Your task to perform on an android device: open chrome and create a bookmark for the current page Image 0: 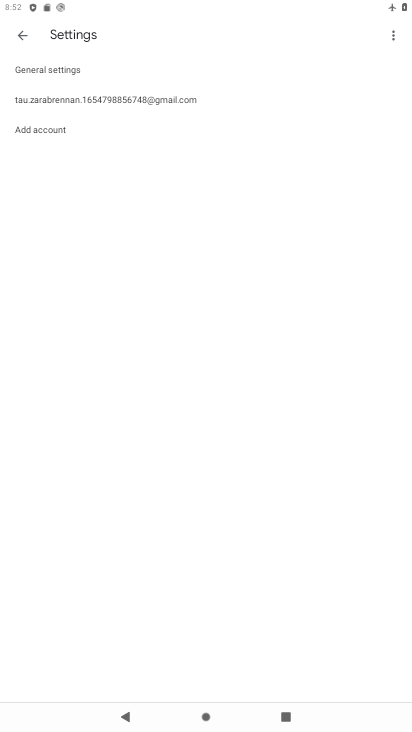
Step 0: press home button
Your task to perform on an android device: open chrome and create a bookmark for the current page Image 1: 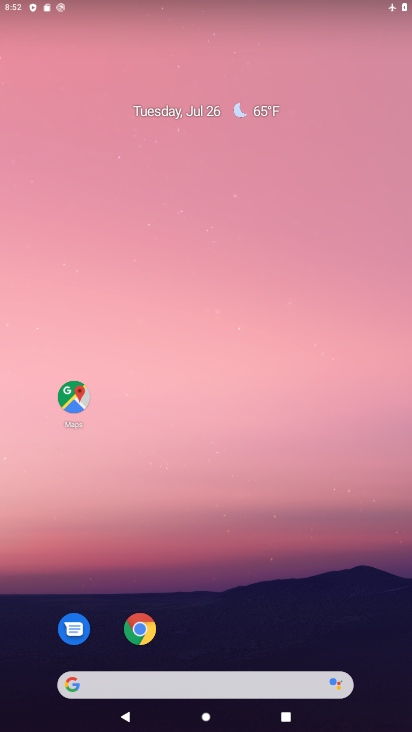
Step 1: drag from (299, 598) to (252, 17)
Your task to perform on an android device: open chrome and create a bookmark for the current page Image 2: 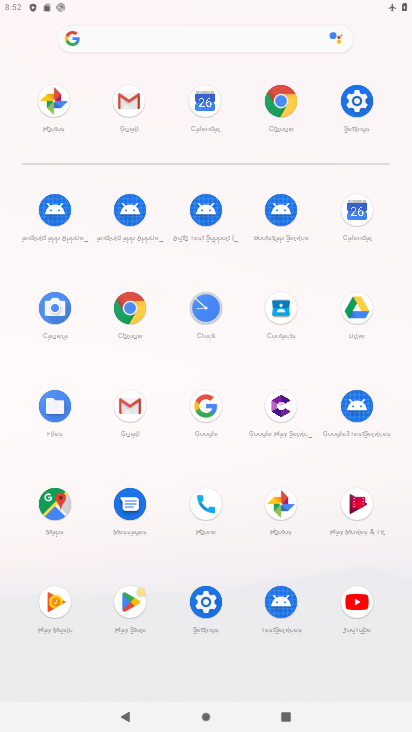
Step 2: click (281, 109)
Your task to perform on an android device: open chrome and create a bookmark for the current page Image 3: 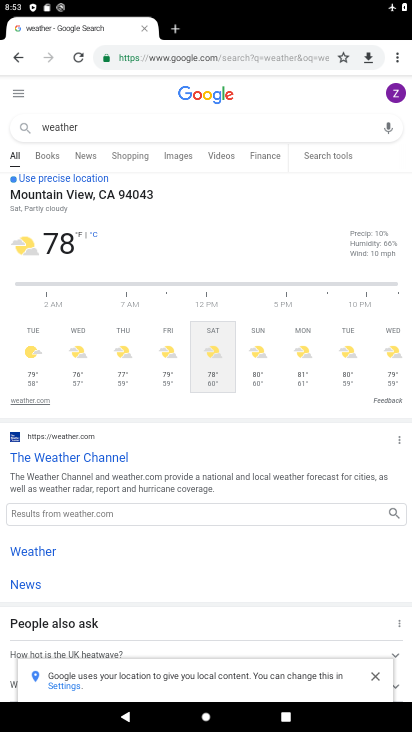
Step 3: drag from (394, 55) to (136, 109)
Your task to perform on an android device: open chrome and create a bookmark for the current page Image 4: 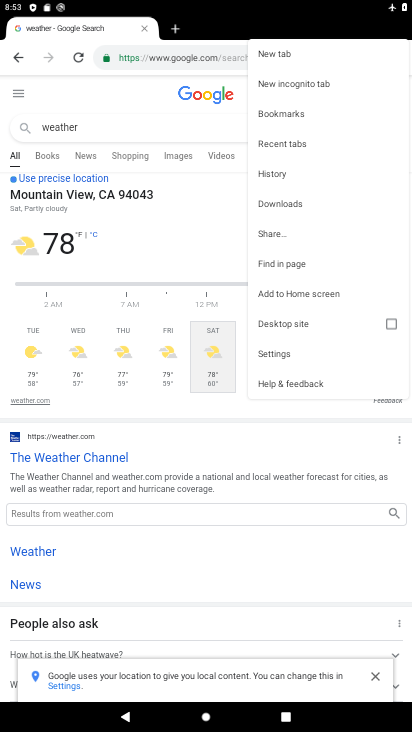
Step 4: click (134, 107)
Your task to perform on an android device: open chrome and create a bookmark for the current page Image 5: 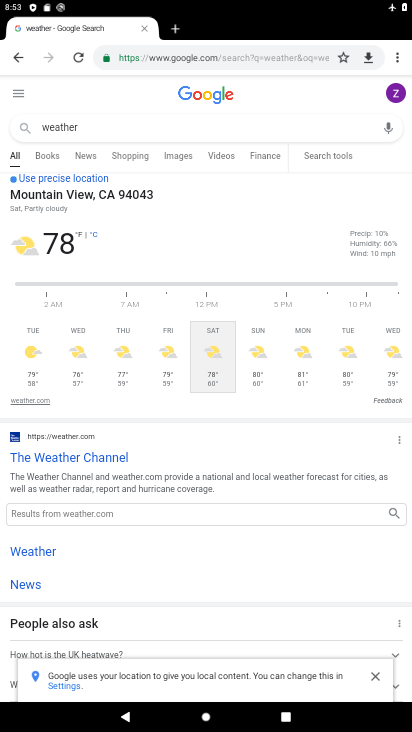
Step 5: click (350, 62)
Your task to perform on an android device: open chrome and create a bookmark for the current page Image 6: 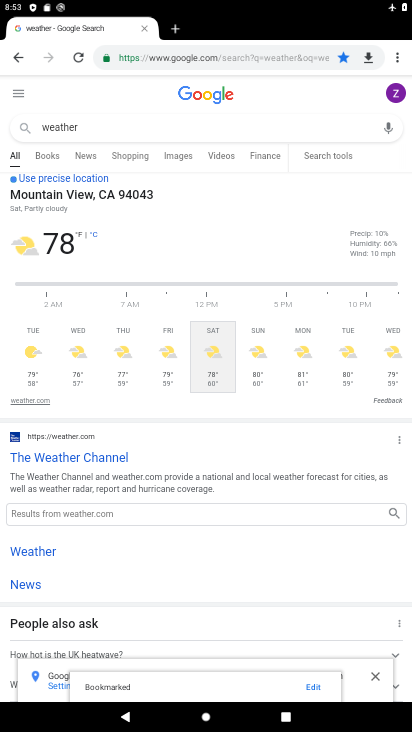
Step 6: task complete